Your task to perform on an android device: create a new album in the google photos Image 0: 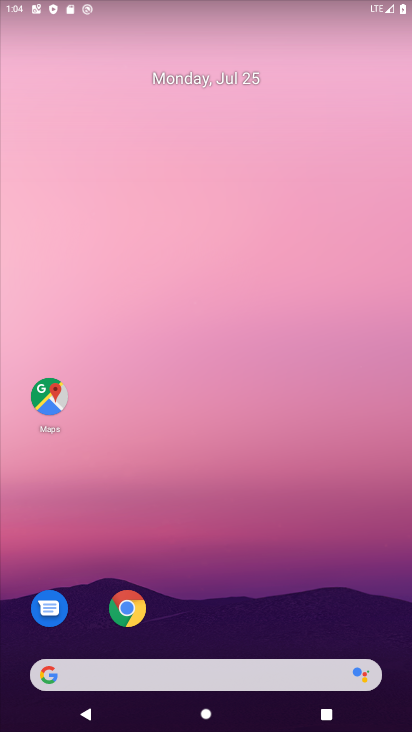
Step 0: drag from (329, 631) to (310, 33)
Your task to perform on an android device: create a new album in the google photos Image 1: 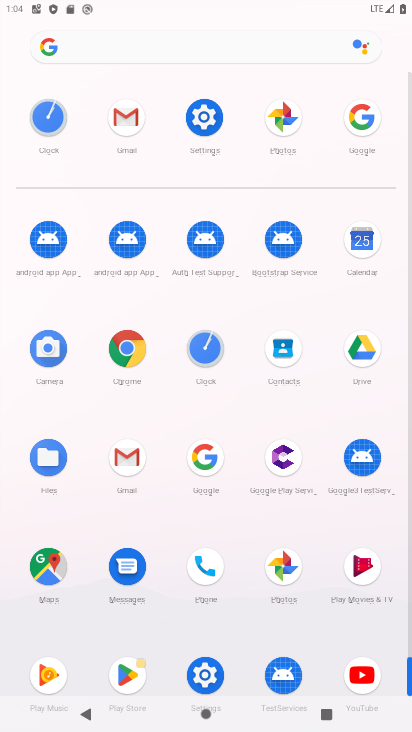
Step 1: click (283, 121)
Your task to perform on an android device: create a new album in the google photos Image 2: 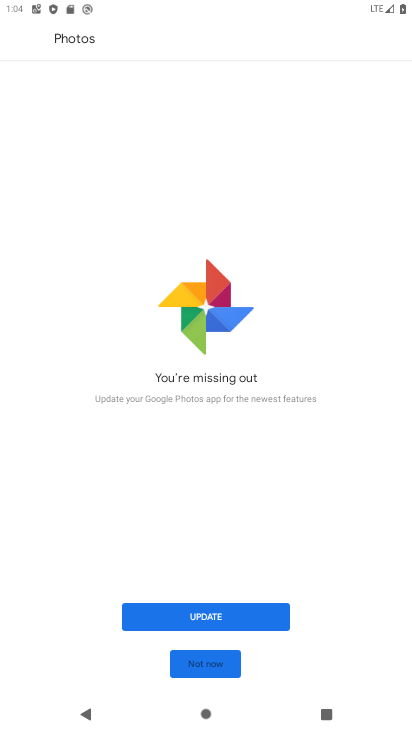
Step 2: click (305, 406)
Your task to perform on an android device: create a new album in the google photos Image 3: 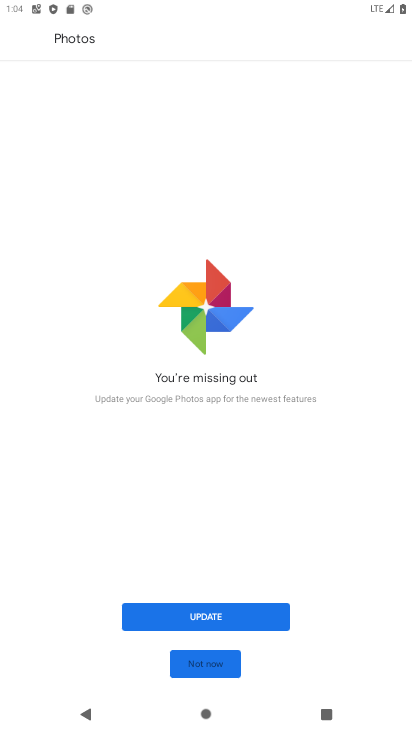
Step 3: click (200, 626)
Your task to perform on an android device: create a new album in the google photos Image 4: 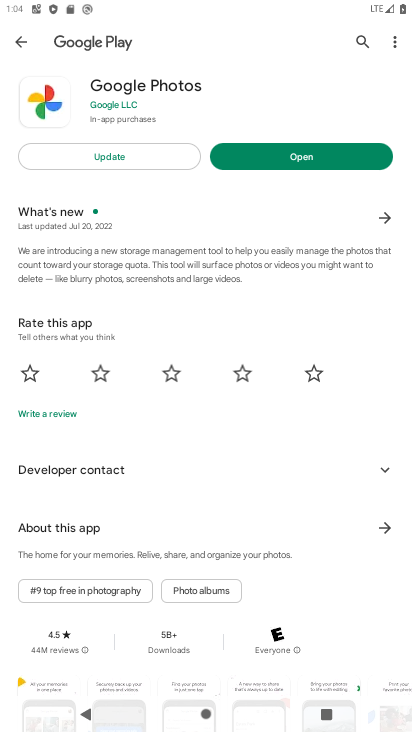
Step 4: click (300, 172)
Your task to perform on an android device: create a new album in the google photos Image 5: 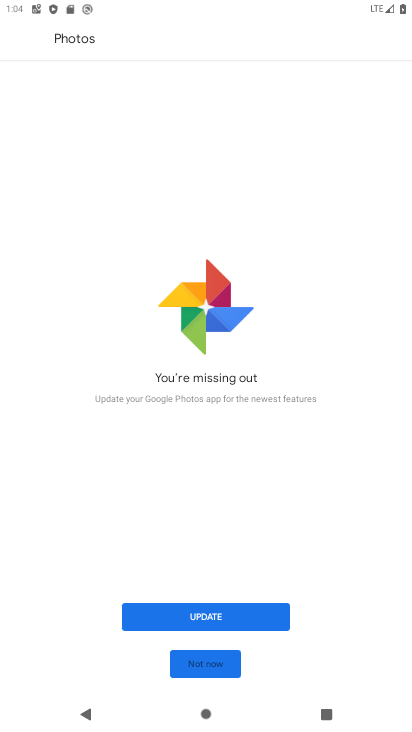
Step 5: click (199, 669)
Your task to perform on an android device: create a new album in the google photos Image 6: 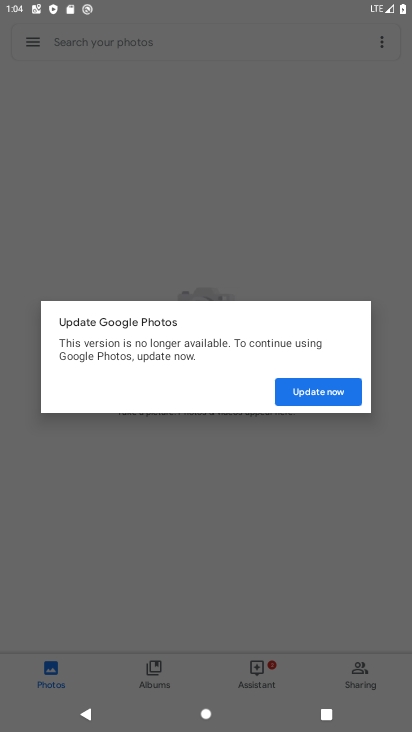
Step 6: click (309, 401)
Your task to perform on an android device: create a new album in the google photos Image 7: 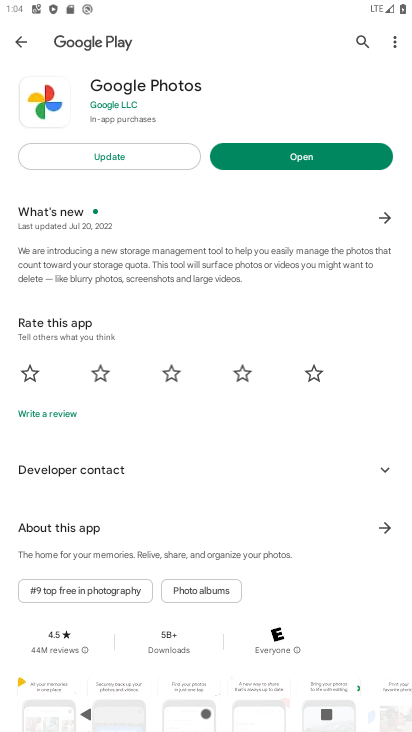
Step 7: click (252, 159)
Your task to perform on an android device: create a new album in the google photos Image 8: 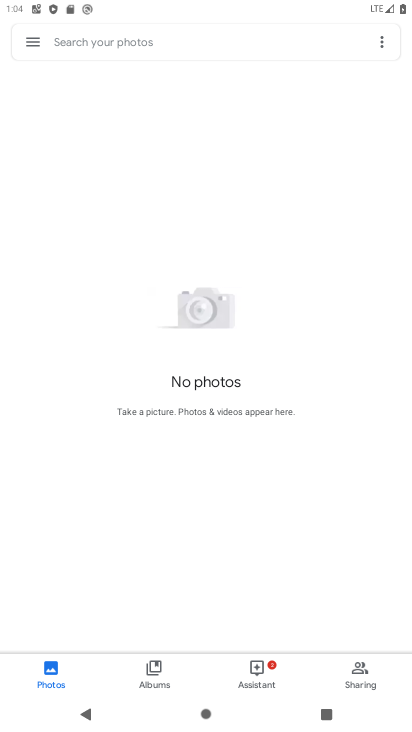
Step 8: click (31, 676)
Your task to perform on an android device: create a new album in the google photos Image 9: 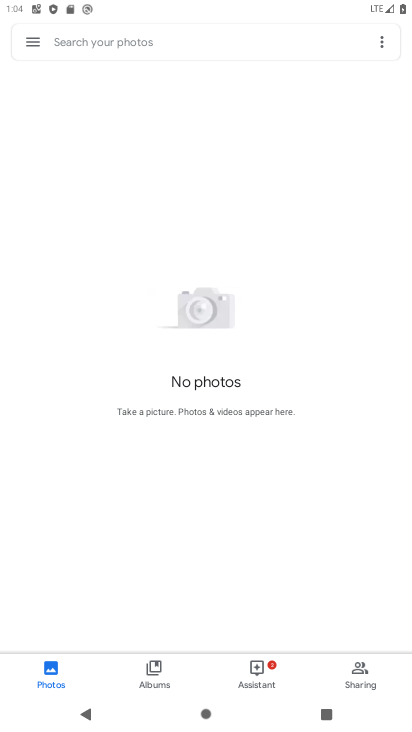
Step 9: task complete